Your task to perform on an android device: Open Google Maps Image 0: 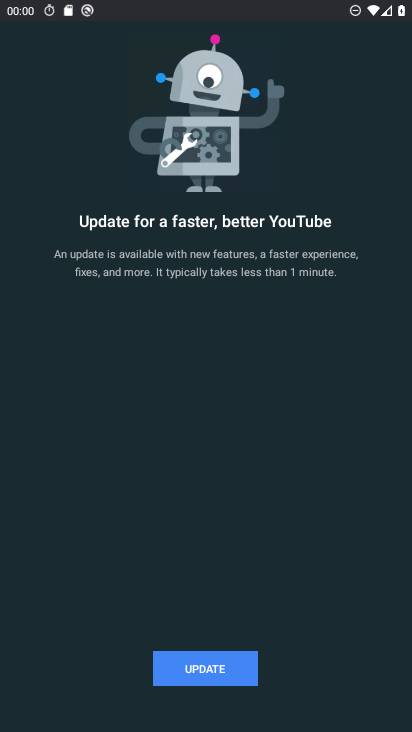
Step 0: press home button
Your task to perform on an android device: Open Google Maps Image 1: 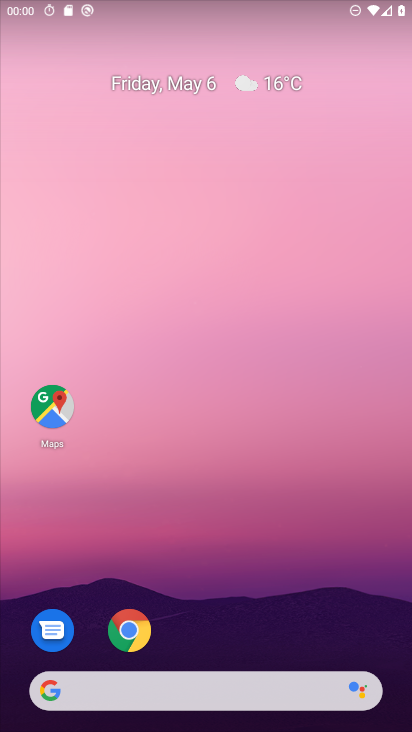
Step 1: click (54, 407)
Your task to perform on an android device: Open Google Maps Image 2: 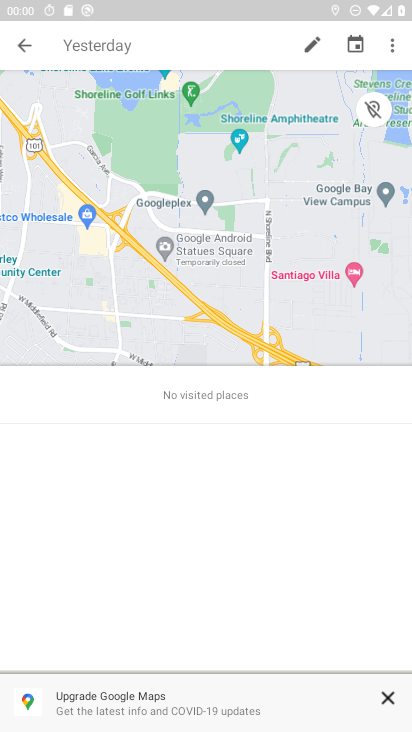
Step 2: task complete